Your task to perform on an android device: install app "Truecaller" Image 0: 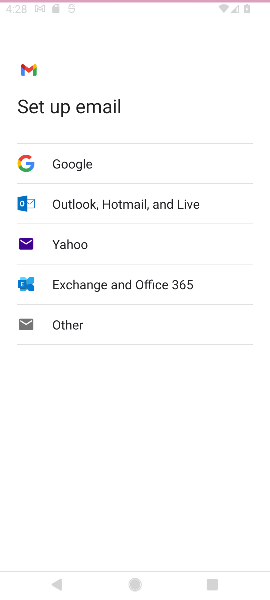
Step 0: press home button
Your task to perform on an android device: install app "Truecaller" Image 1: 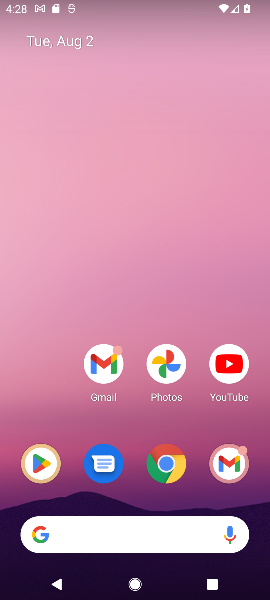
Step 1: click (41, 459)
Your task to perform on an android device: install app "Truecaller" Image 2: 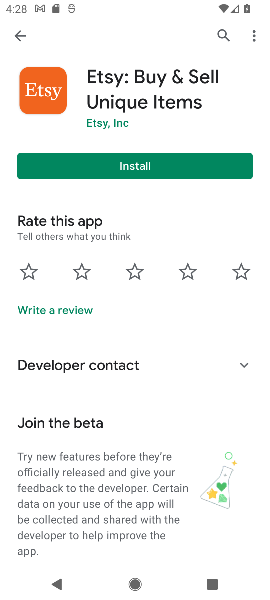
Step 2: click (223, 29)
Your task to perform on an android device: install app "Truecaller" Image 3: 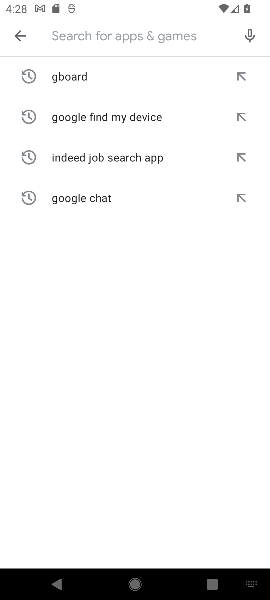
Step 3: type "Truecaller"
Your task to perform on an android device: install app "Truecaller" Image 4: 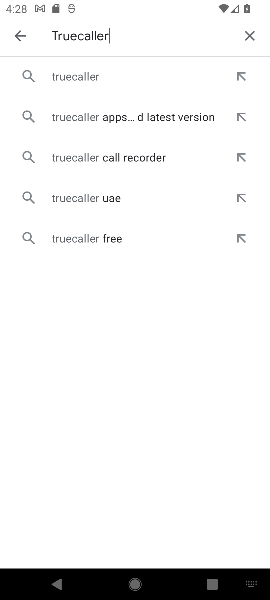
Step 4: click (69, 75)
Your task to perform on an android device: install app "Truecaller" Image 5: 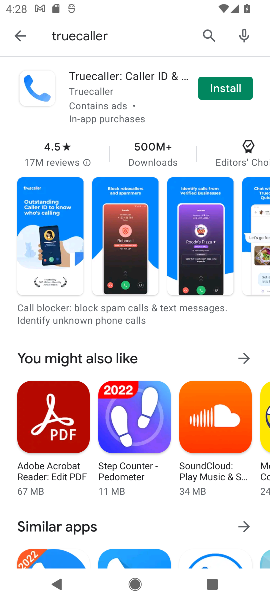
Step 5: click (214, 94)
Your task to perform on an android device: install app "Truecaller" Image 6: 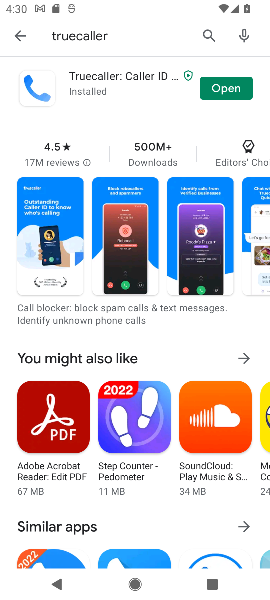
Step 6: task complete